Your task to perform on an android device: check storage Image 0: 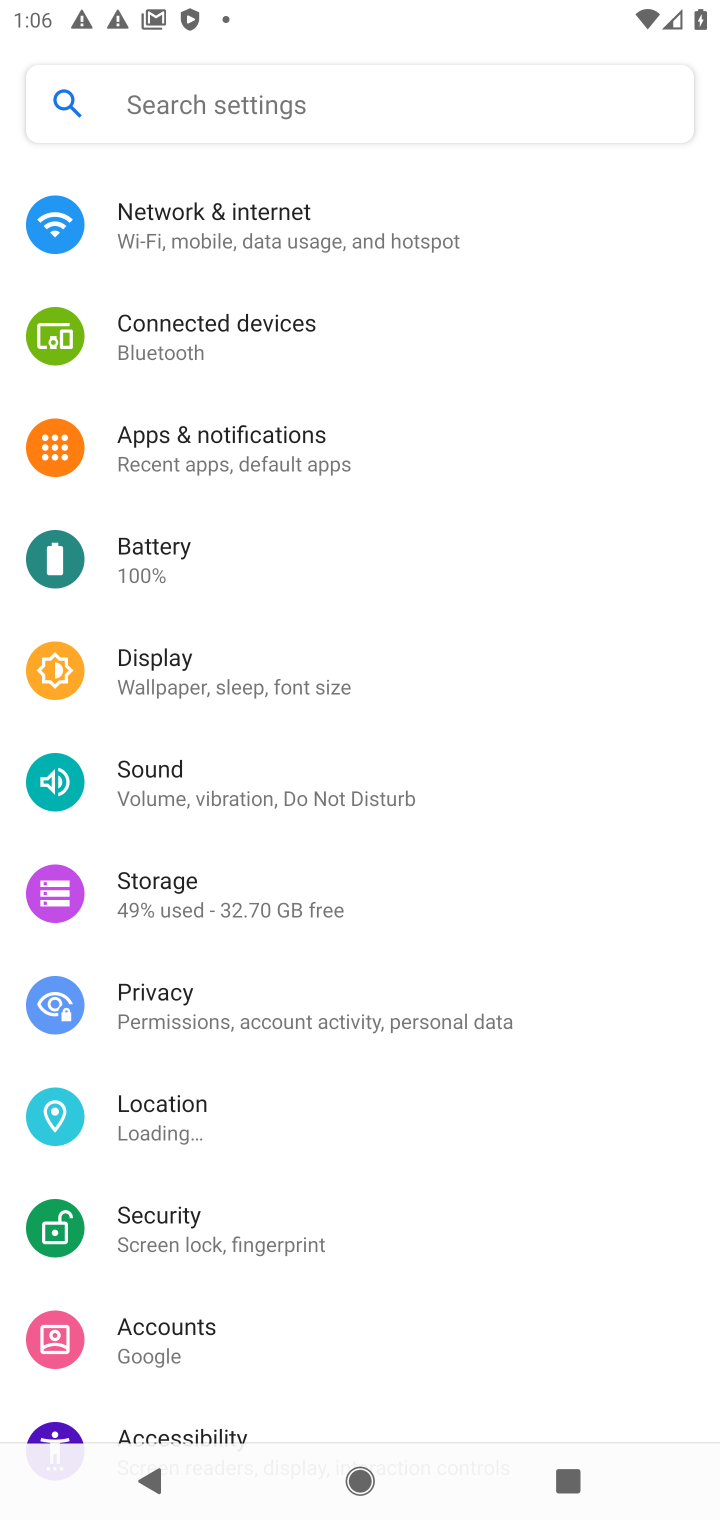
Step 0: press home button
Your task to perform on an android device: check storage Image 1: 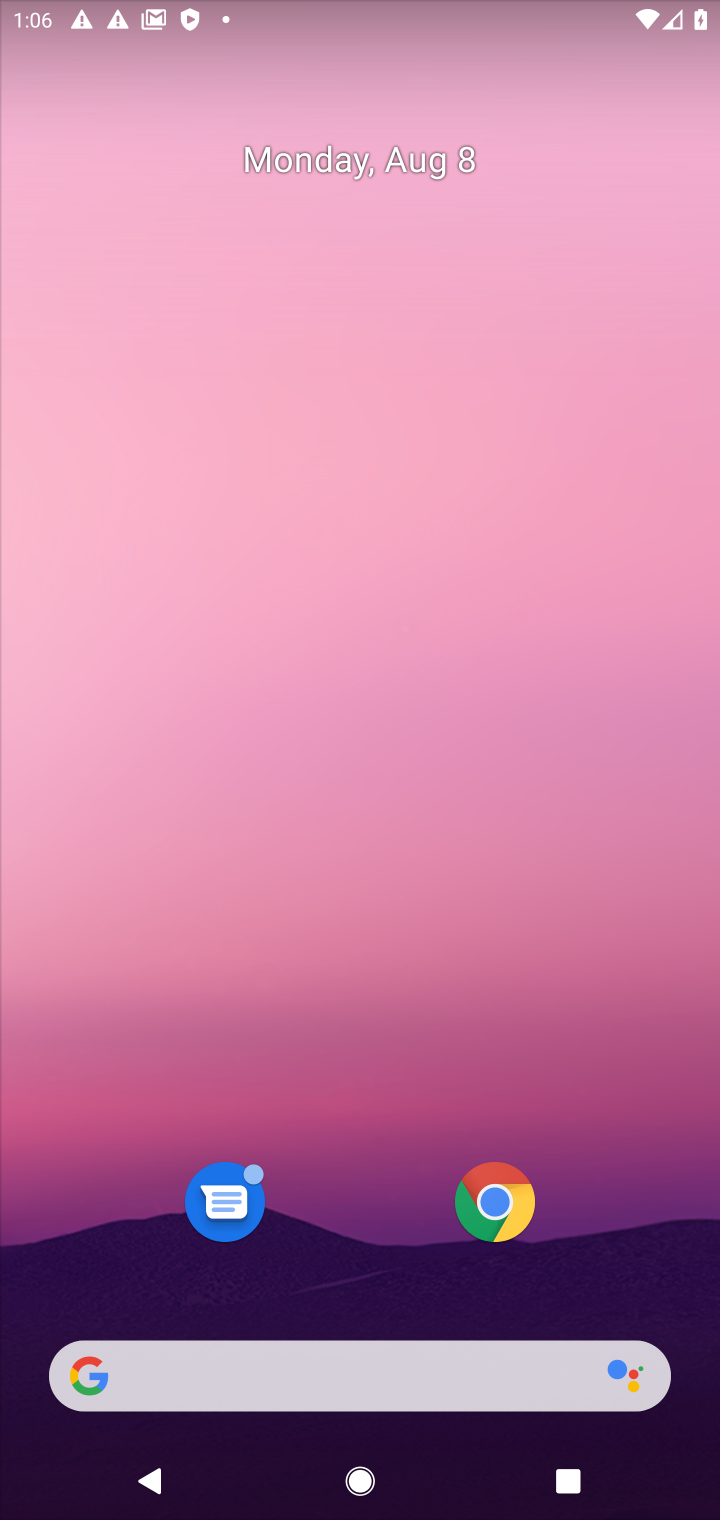
Step 1: drag from (356, 1186) to (438, 455)
Your task to perform on an android device: check storage Image 2: 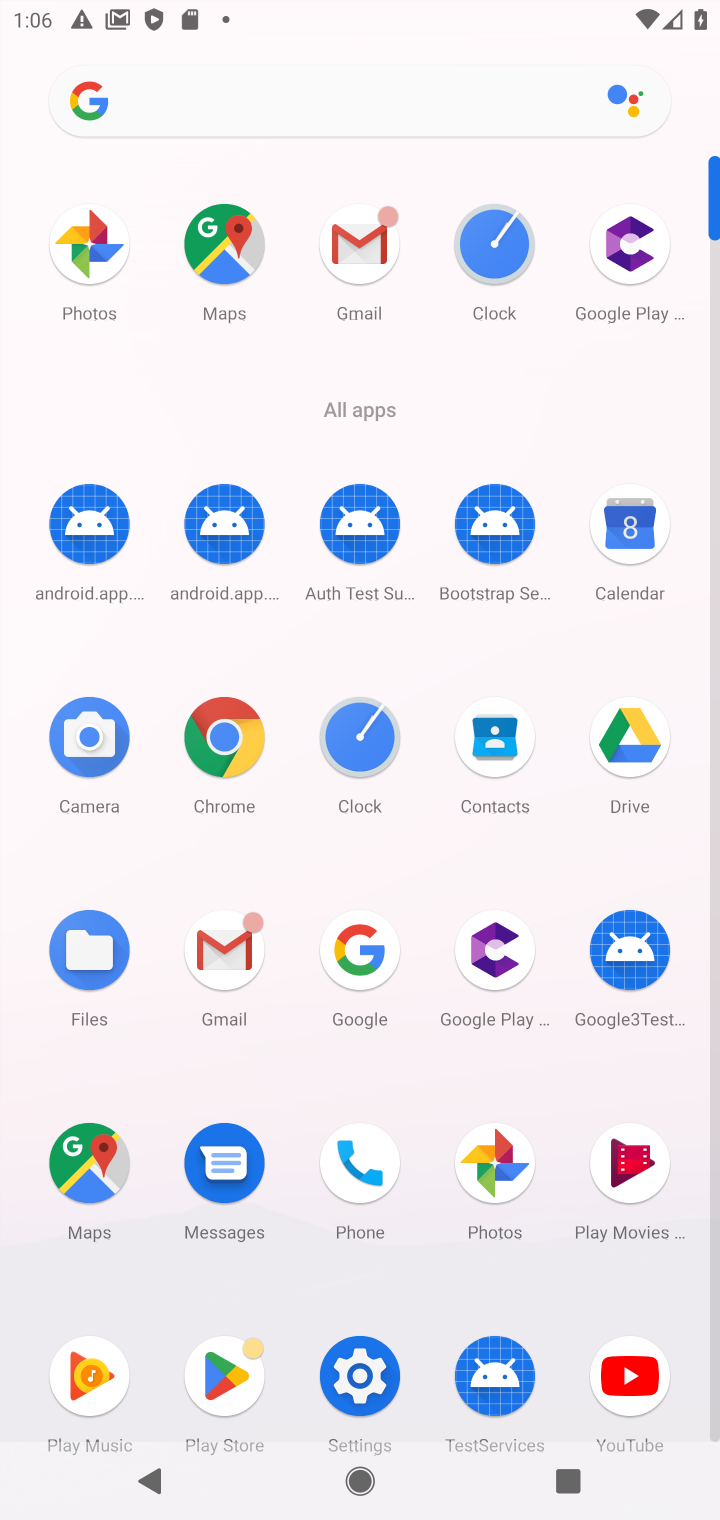
Step 2: click (359, 1383)
Your task to perform on an android device: check storage Image 3: 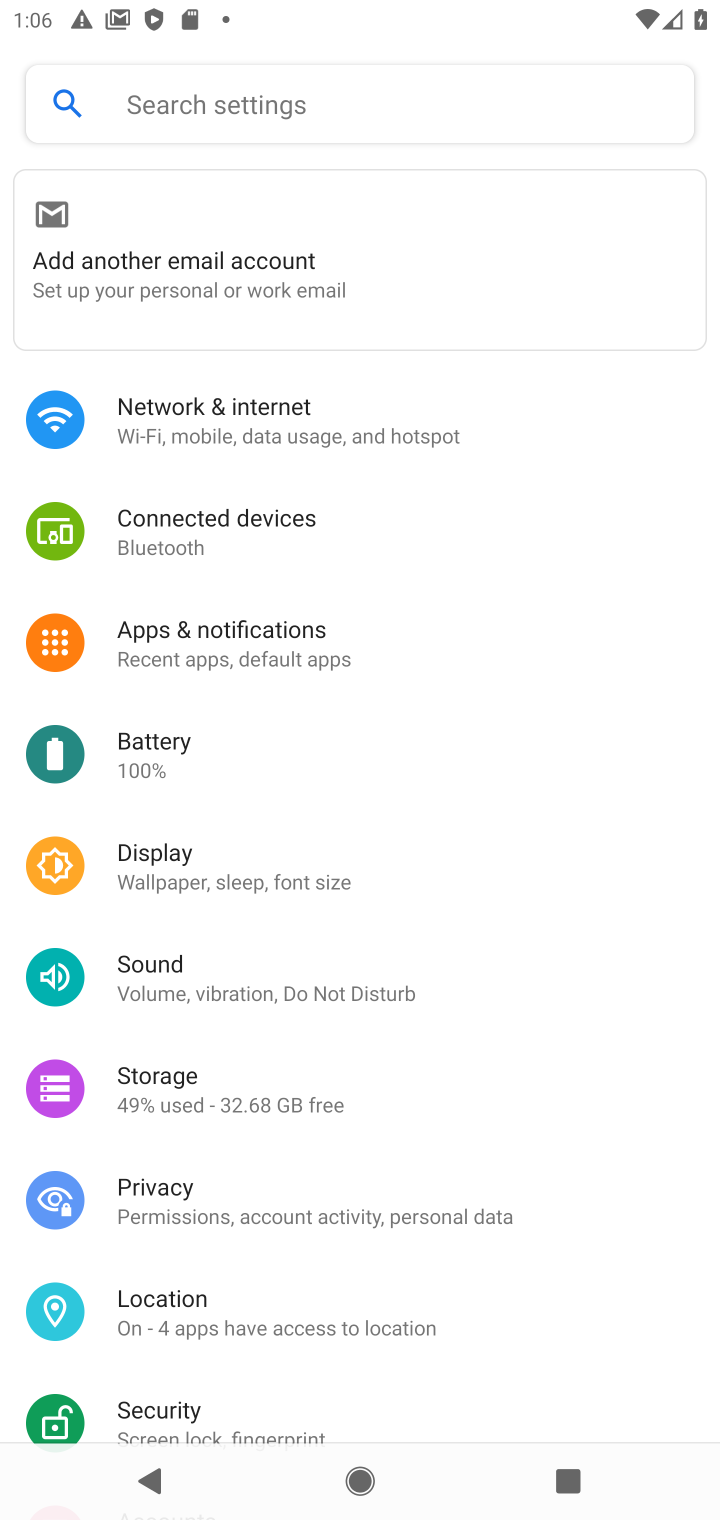
Step 3: drag from (601, 840) to (603, 632)
Your task to perform on an android device: check storage Image 4: 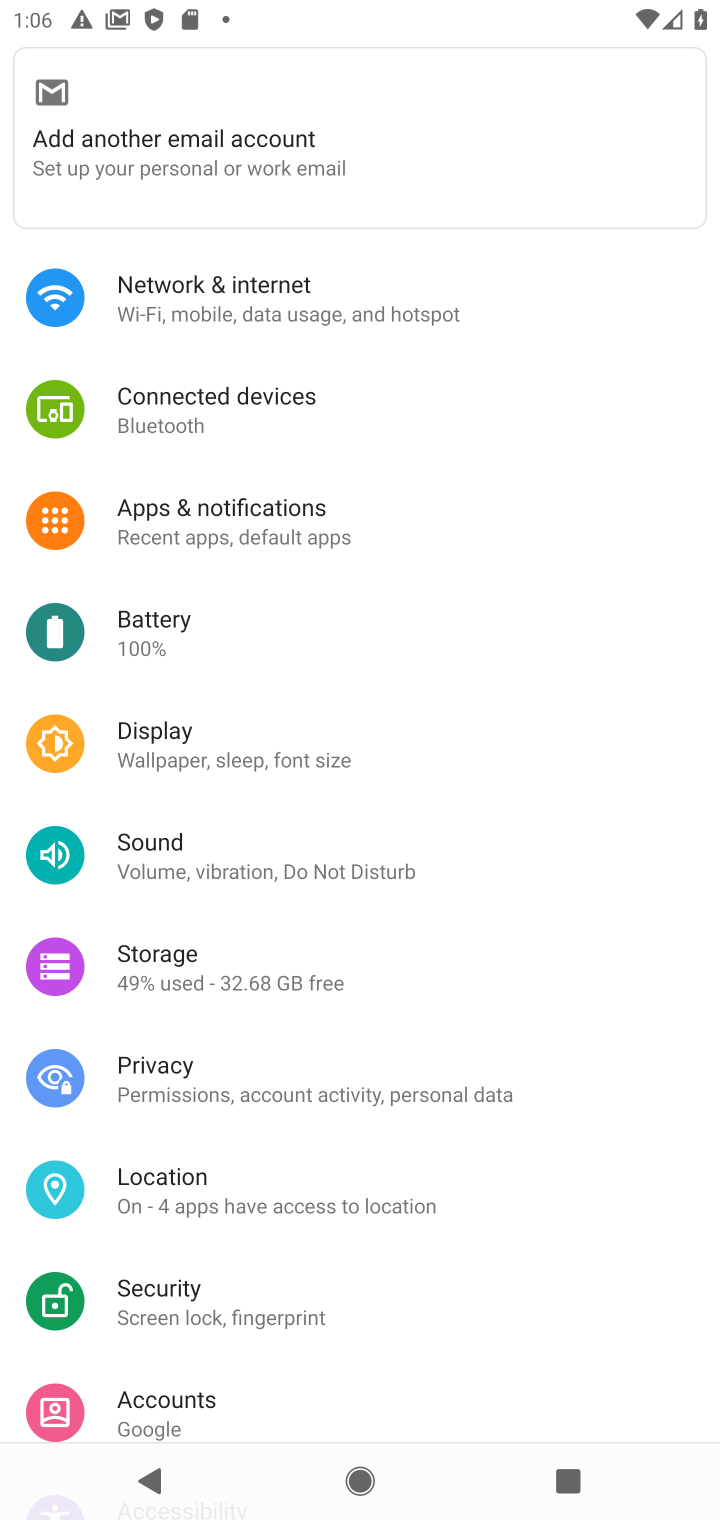
Step 4: drag from (597, 919) to (623, 704)
Your task to perform on an android device: check storage Image 5: 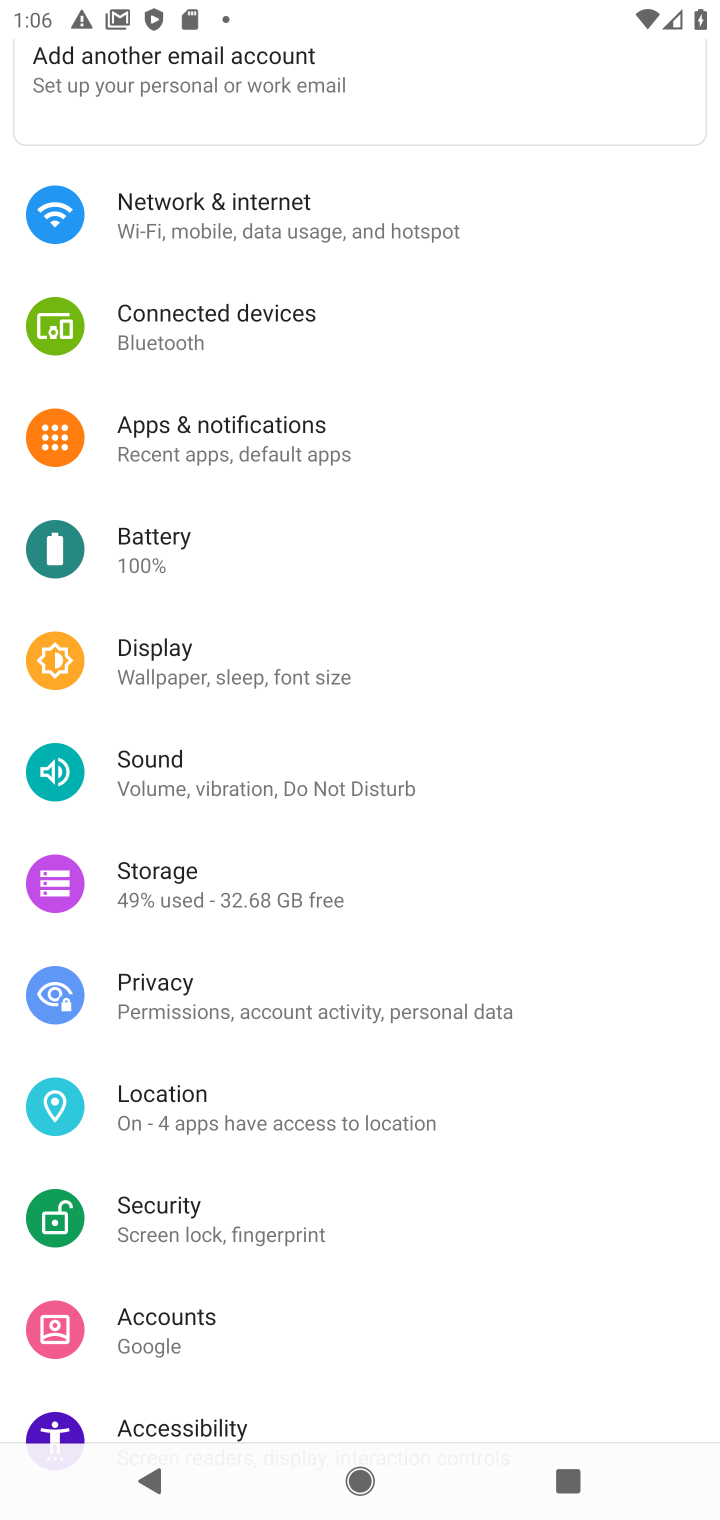
Step 5: drag from (603, 1021) to (595, 768)
Your task to perform on an android device: check storage Image 6: 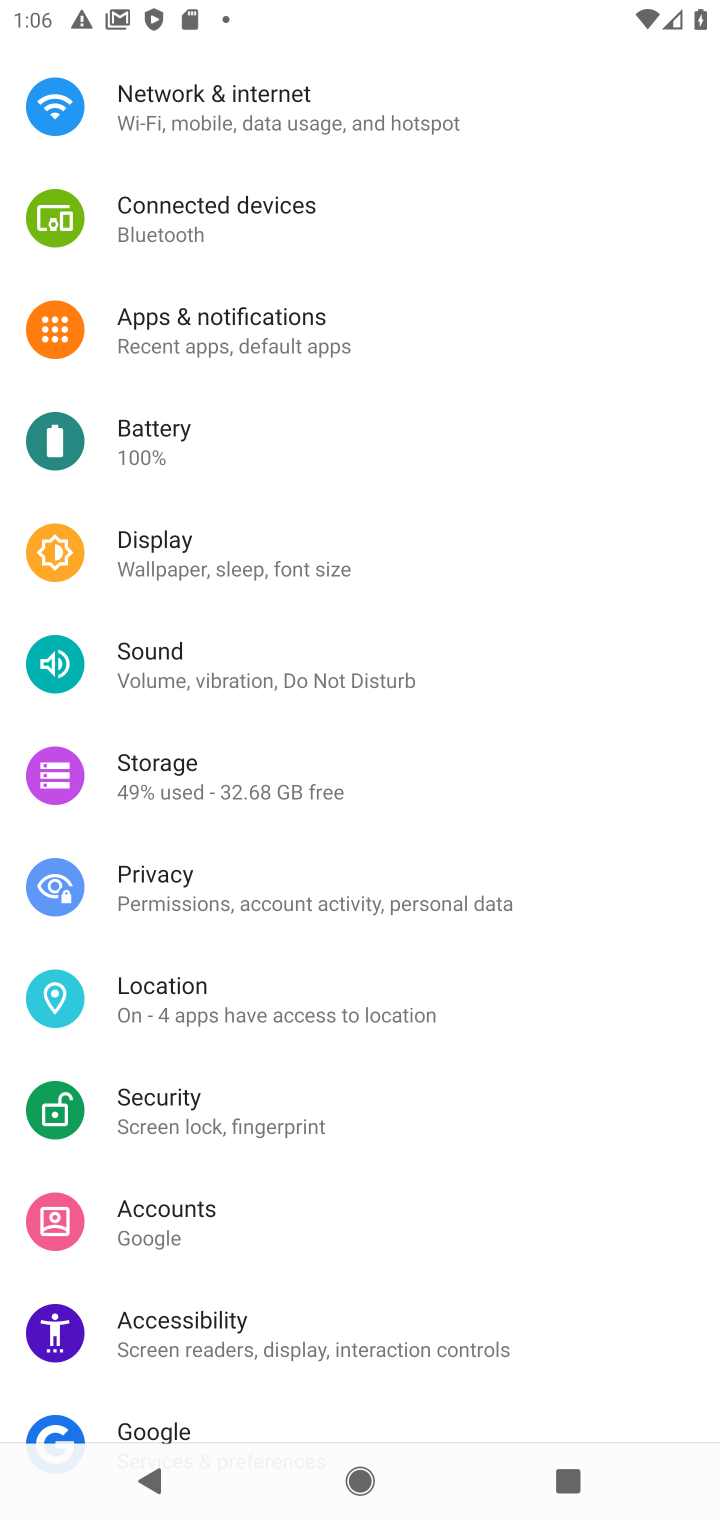
Step 6: drag from (566, 1036) to (588, 855)
Your task to perform on an android device: check storage Image 7: 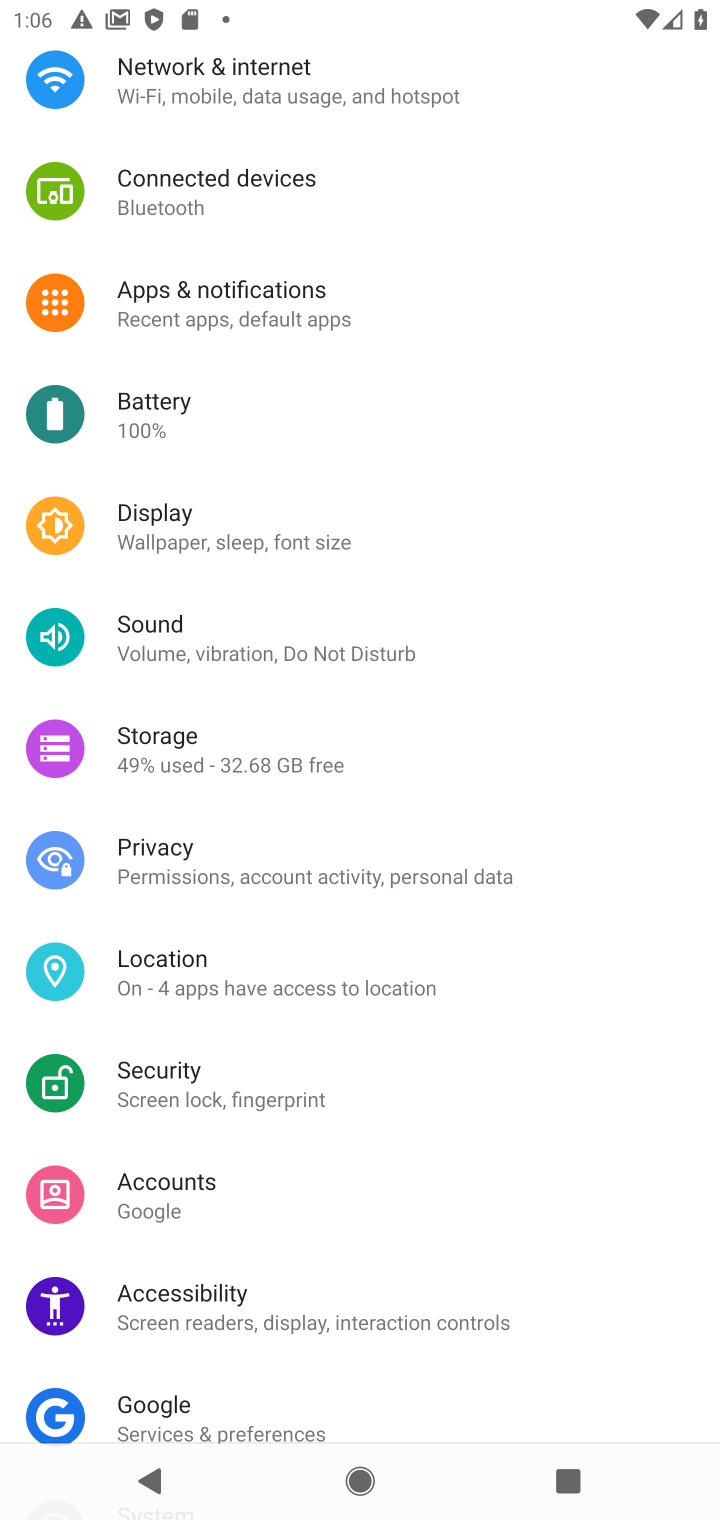
Step 7: drag from (608, 1154) to (623, 821)
Your task to perform on an android device: check storage Image 8: 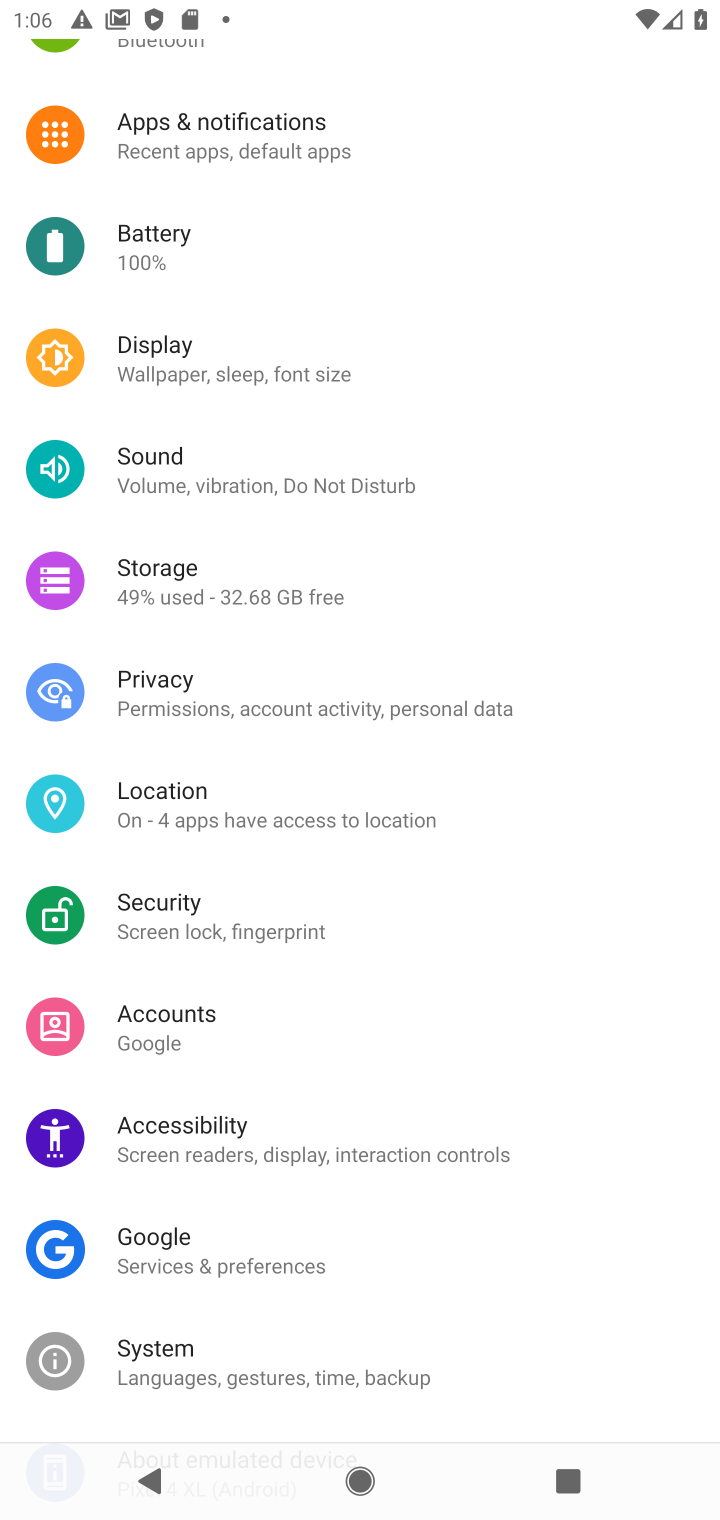
Step 8: drag from (597, 1056) to (601, 895)
Your task to perform on an android device: check storage Image 9: 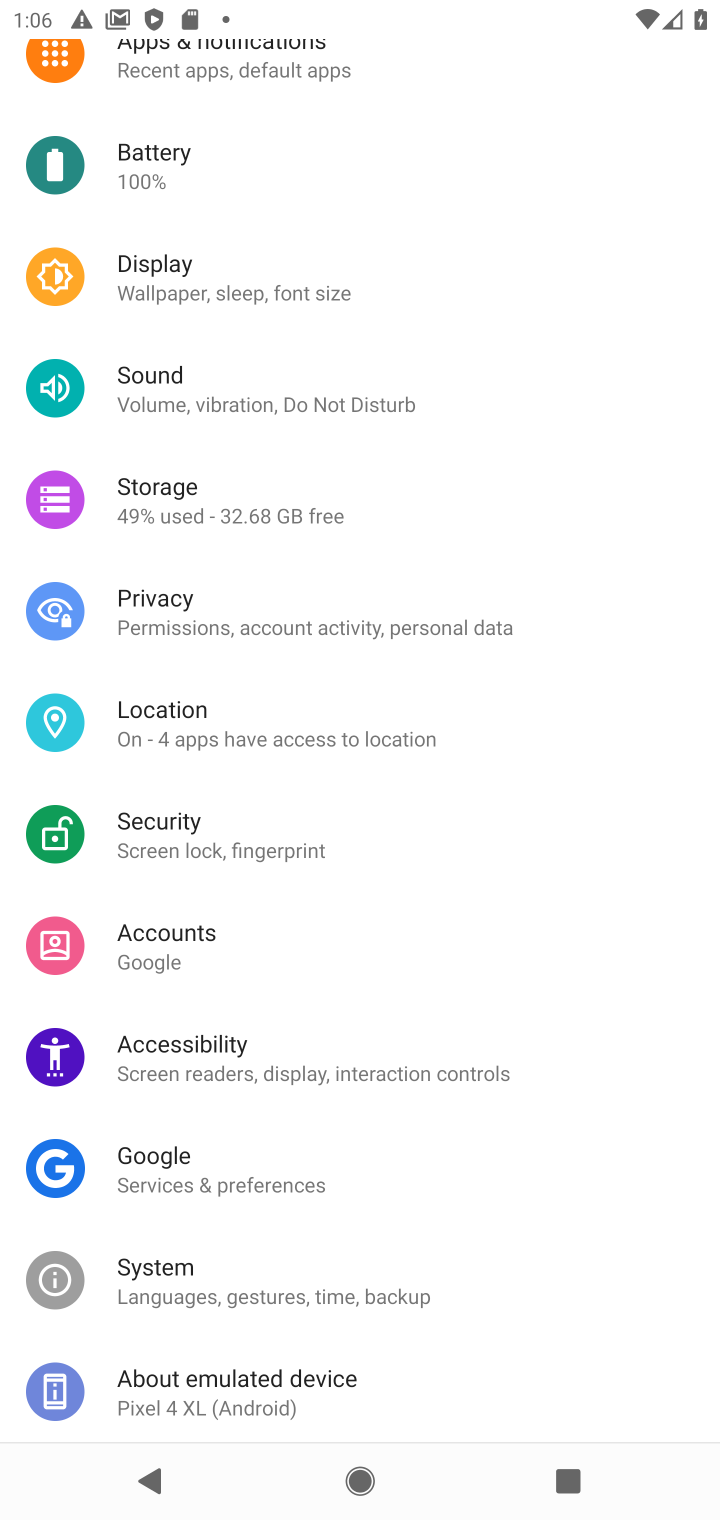
Step 9: drag from (619, 502) to (623, 827)
Your task to perform on an android device: check storage Image 10: 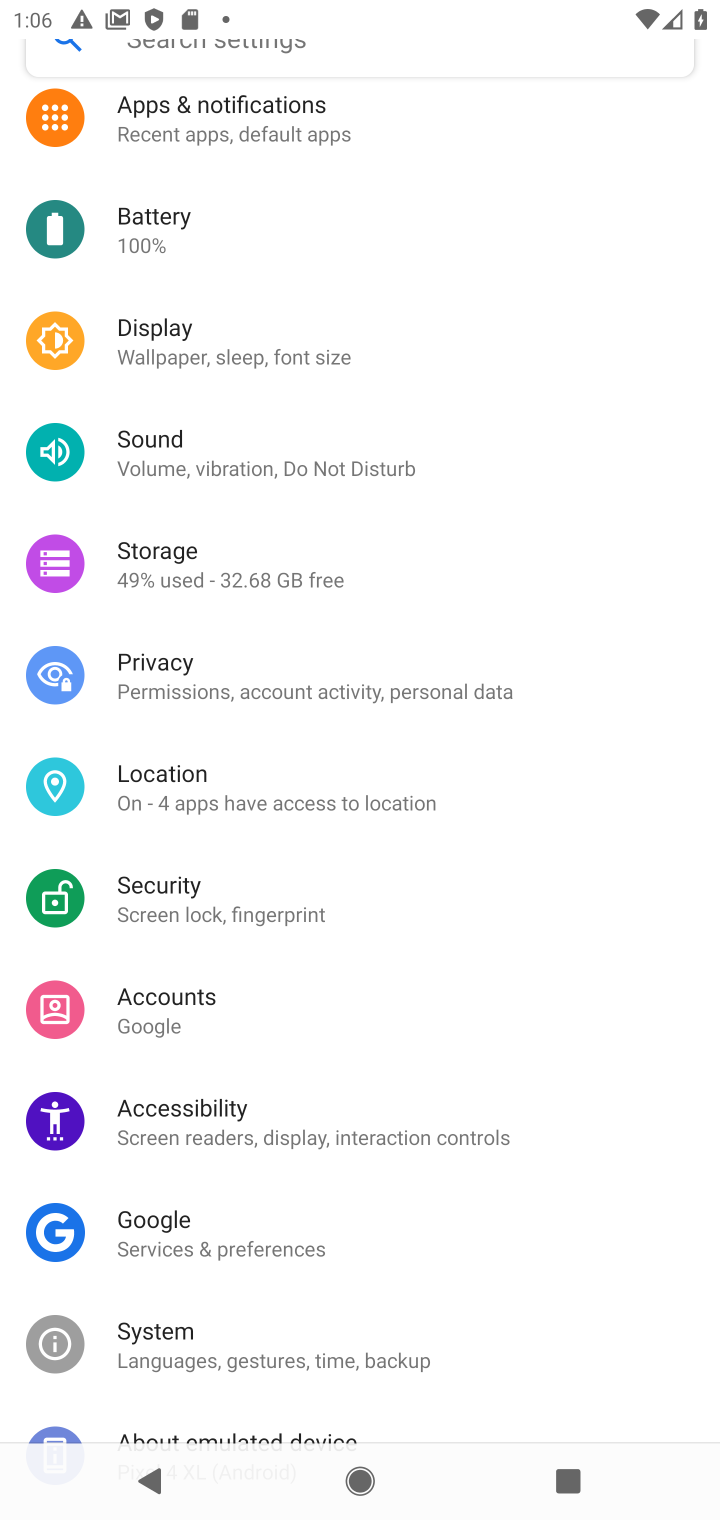
Step 10: drag from (619, 462) to (619, 740)
Your task to perform on an android device: check storage Image 11: 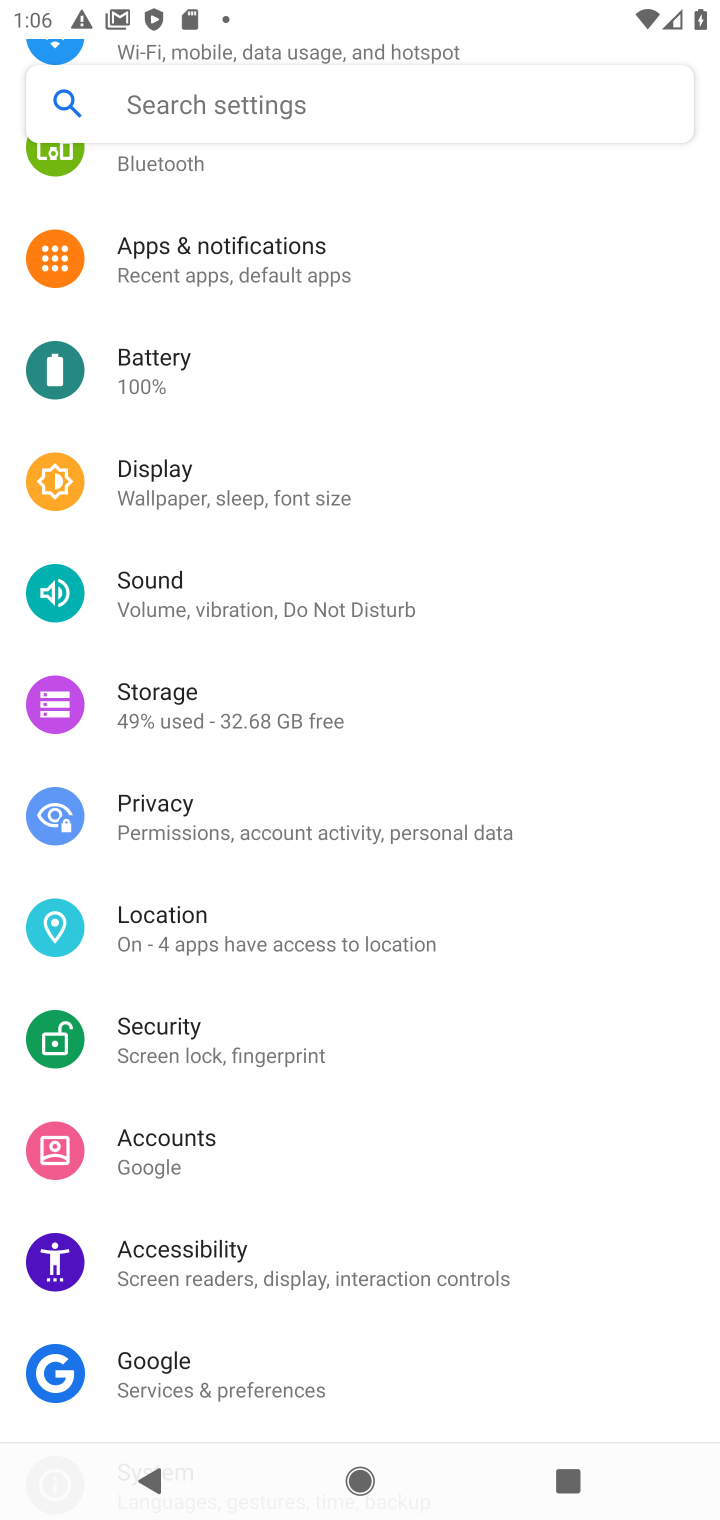
Step 11: drag from (590, 368) to (617, 713)
Your task to perform on an android device: check storage Image 12: 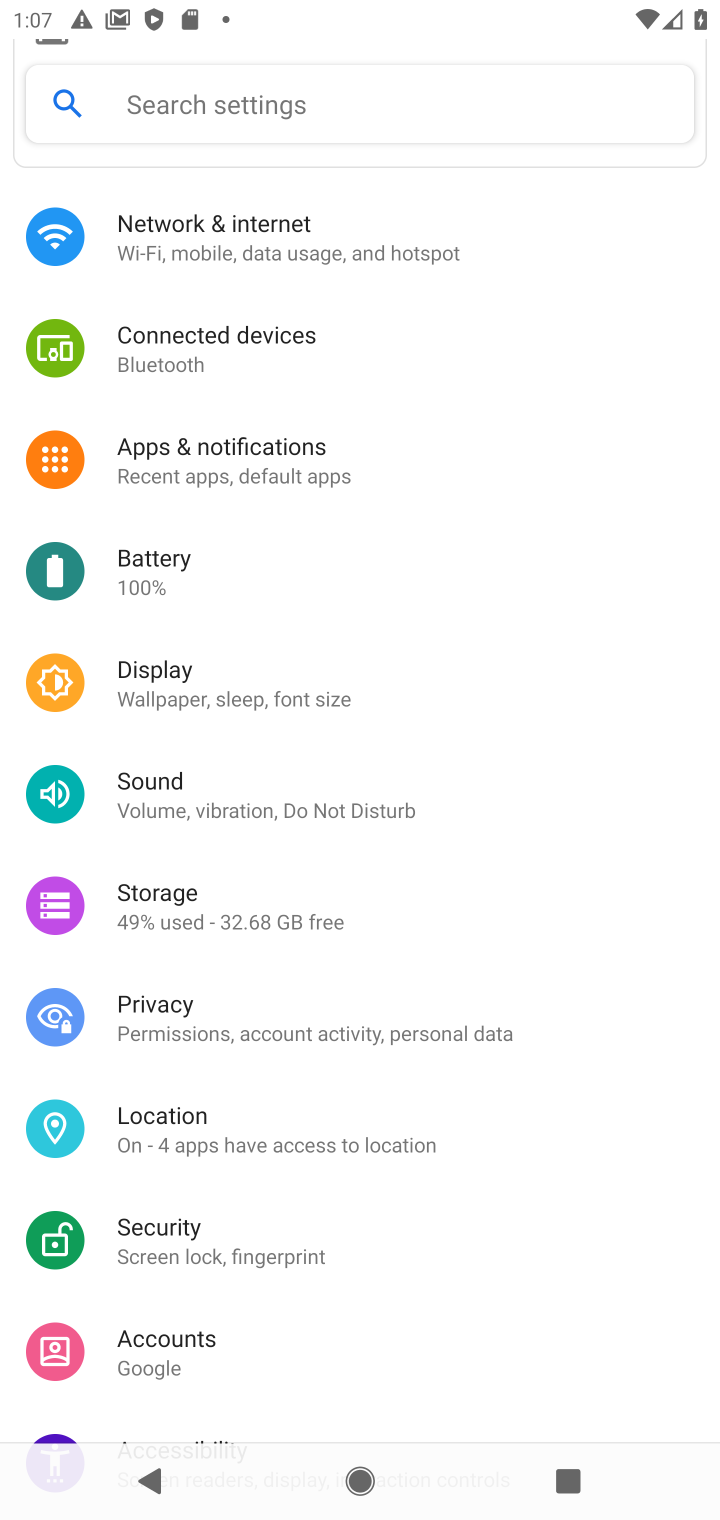
Step 12: drag from (581, 437) to (577, 623)
Your task to perform on an android device: check storage Image 13: 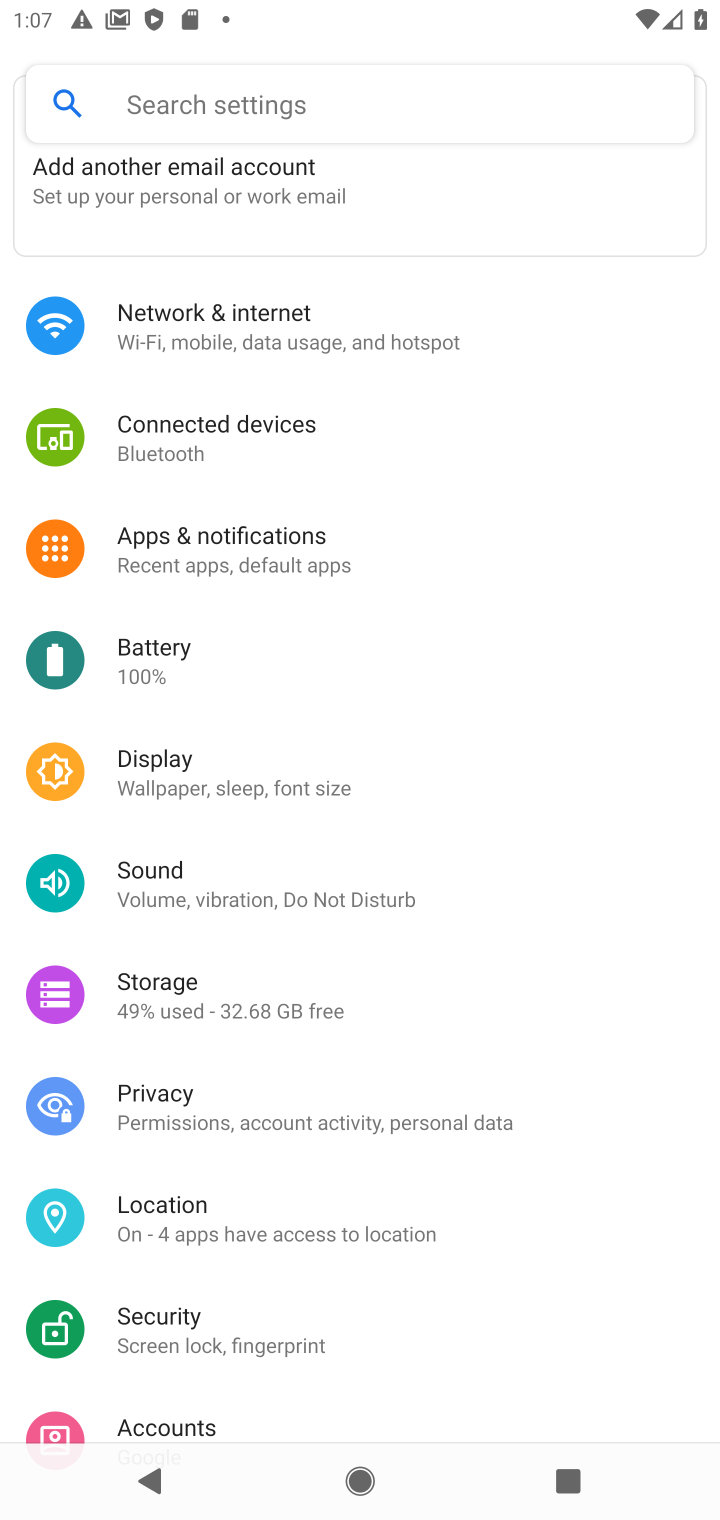
Step 13: click (457, 988)
Your task to perform on an android device: check storage Image 14: 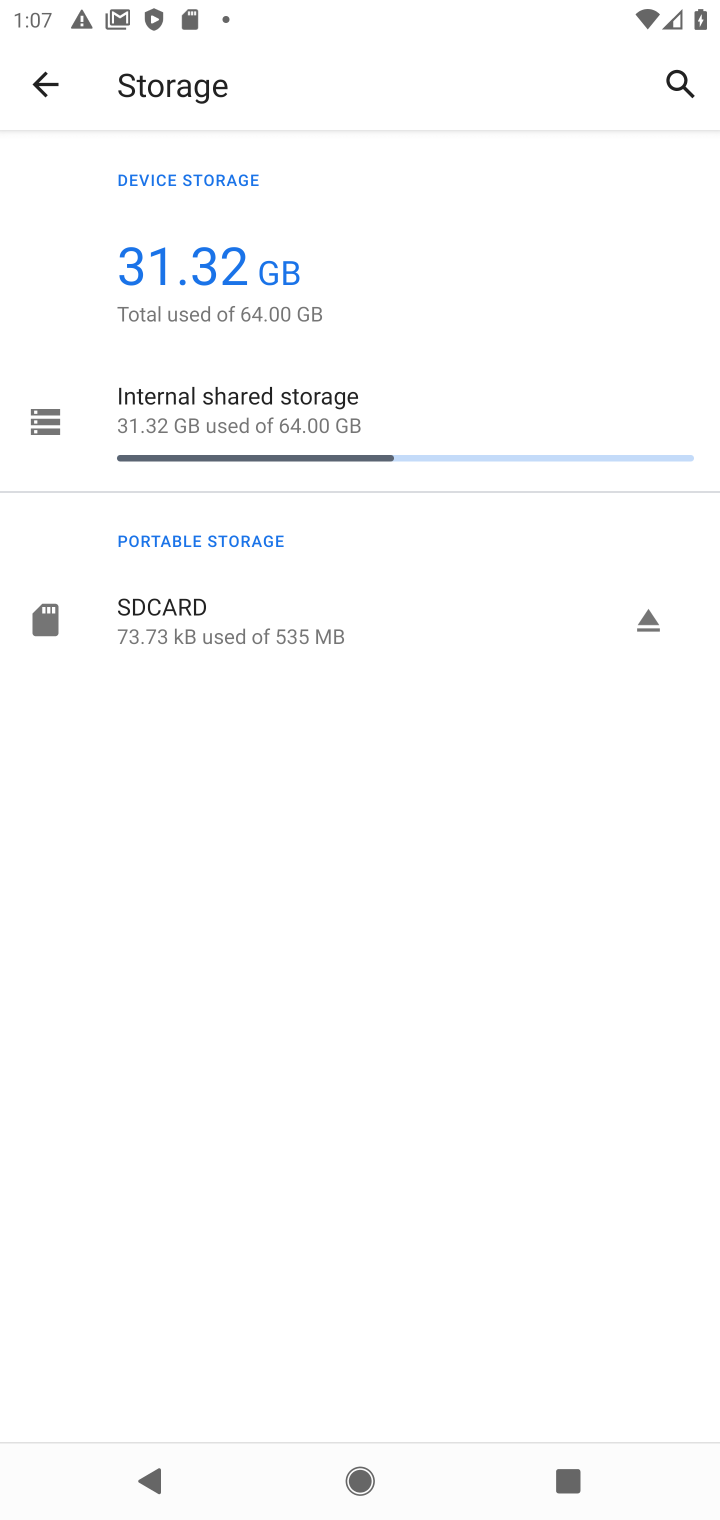
Step 14: task complete